Your task to perform on an android device: read, delete, or share a saved page in the chrome app Image 0: 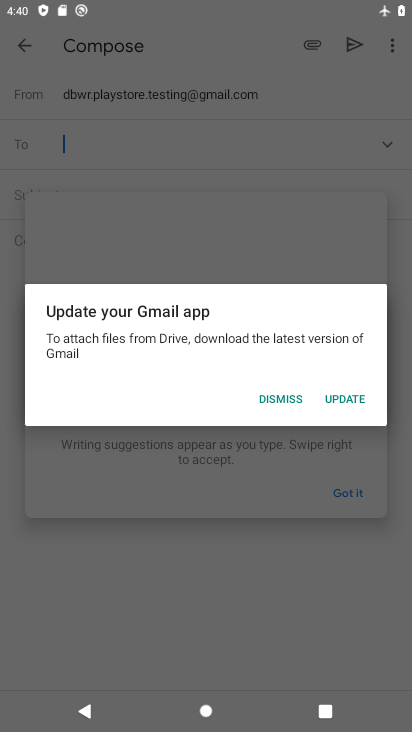
Step 0: press back button
Your task to perform on an android device: read, delete, or share a saved page in the chrome app Image 1: 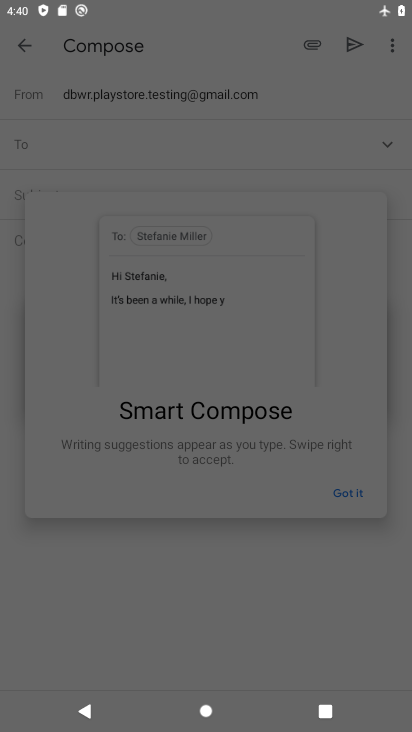
Step 1: press back button
Your task to perform on an android device: read, delete, or share a saved page in the chrome app Image 2: 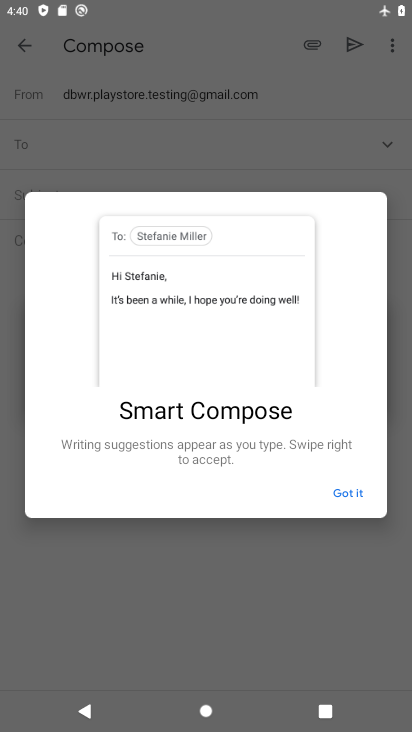
Step 2: press home button
Your task to perform on an android device: read, delete, or share a saved page in the chrome app Image 3: 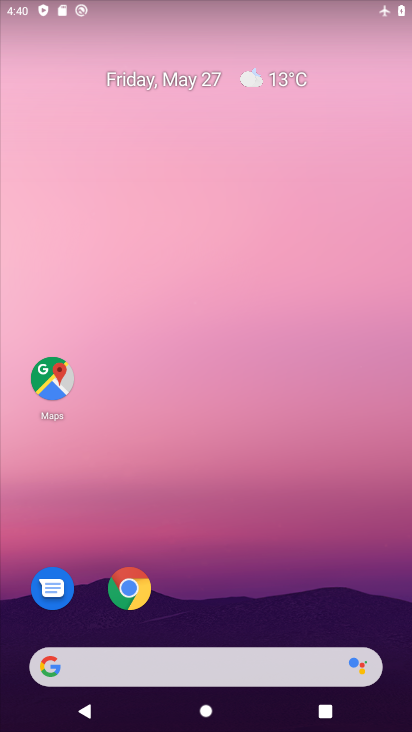
Step 3: click (141, 583)
Your task to perform on an android device: read, delete, or share a saved page in the chrome app Image 4: 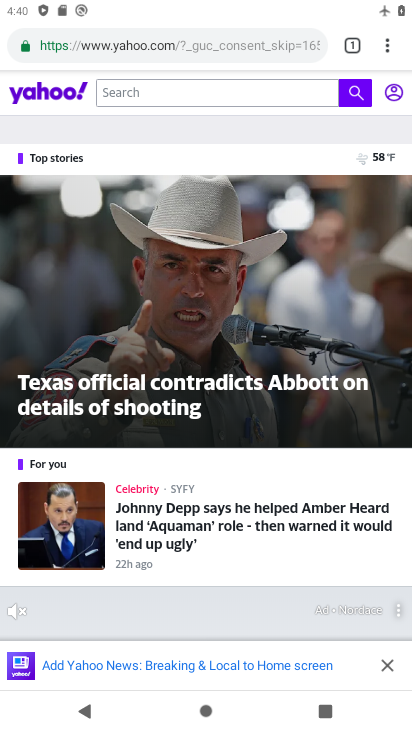
Step 4: drag from (389, 44) to (240, 302)
Your task to perform on an android device: read, delete, or share a saved page in the chrome app Image 5: 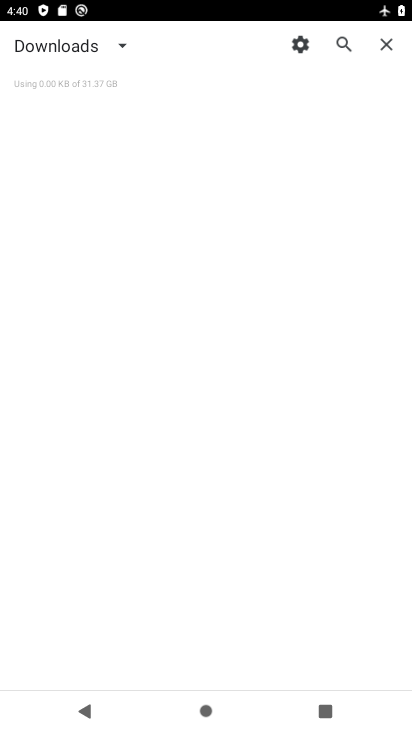
Step 5: click (125, 50)
Your task to perform on an android device: read, delete, or share a saved page in the chrome app Image 6: 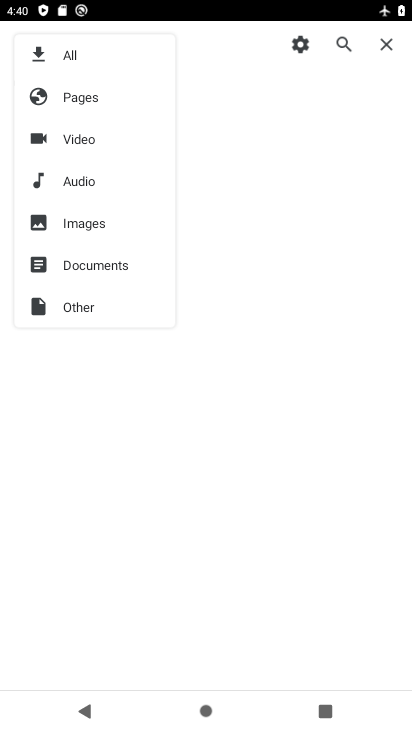
Step 6: click (92, 97)
Your task to perform on an android device: read, delete, or share a saved page in the chrome app Image 7: 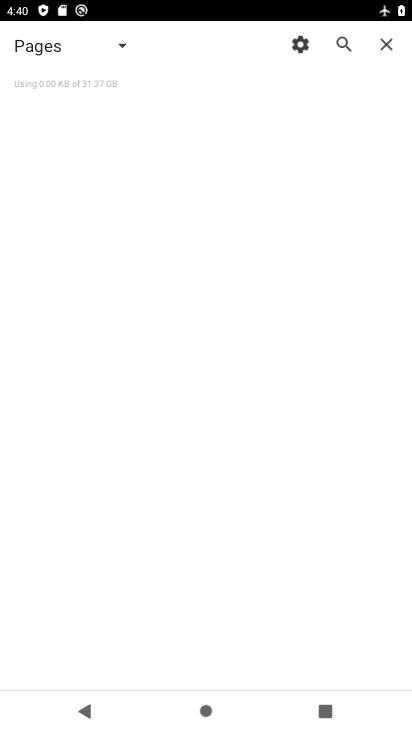
Step 7: task complete